Your task to perform on an android device: Open Reddit.com Image 0: 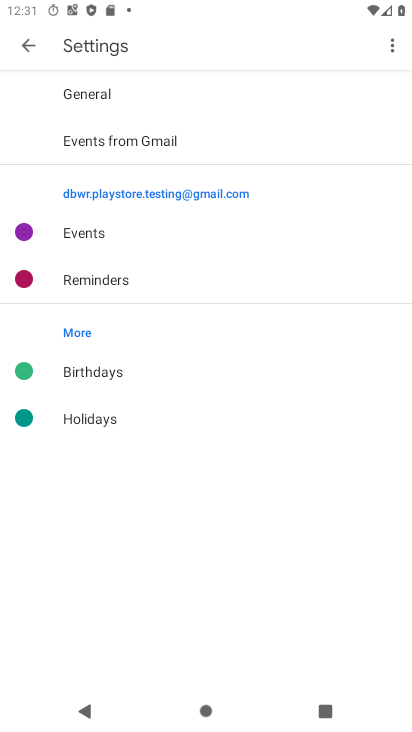
Step 0: press home button
Your task to perform on an android device: Open Reddit.com Image 1: 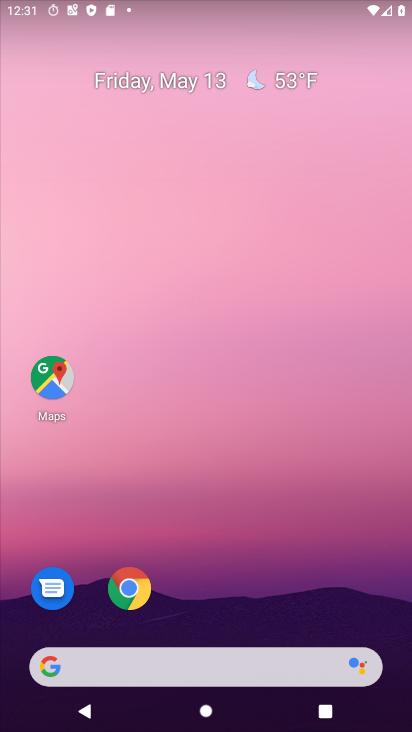
Step 1: drag from (306, 539) to (192, 103)
Your task to perform on an android device: Open Reddit.com Image 2: 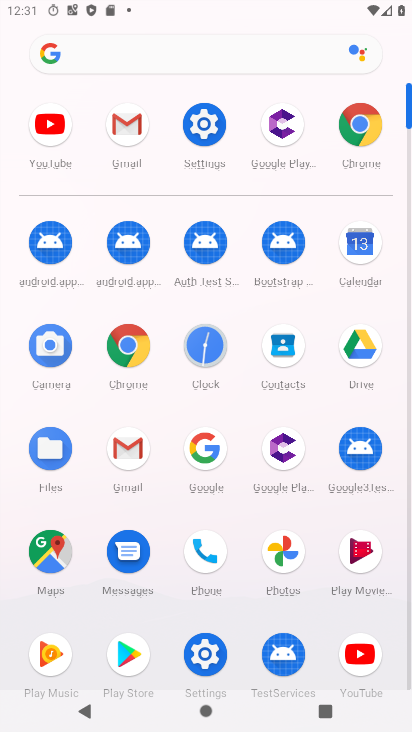
Step 2: click (131, 354)
Your task to perform on an android device: Open Reddit.com Image 3: 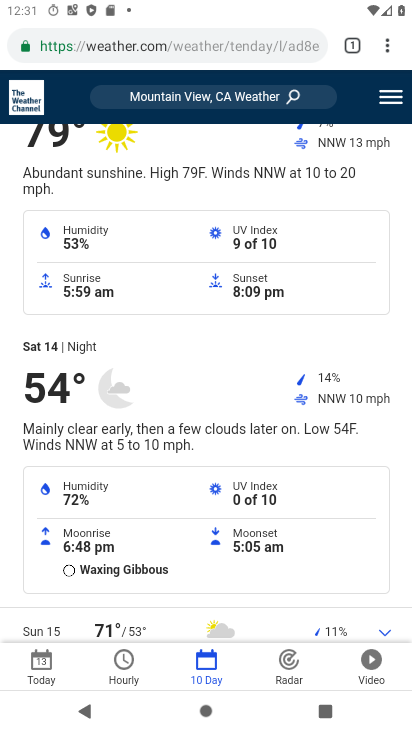
Step 3: click (185, 38)
Your task to perform on an android device: Open Reddit.com Image 4: 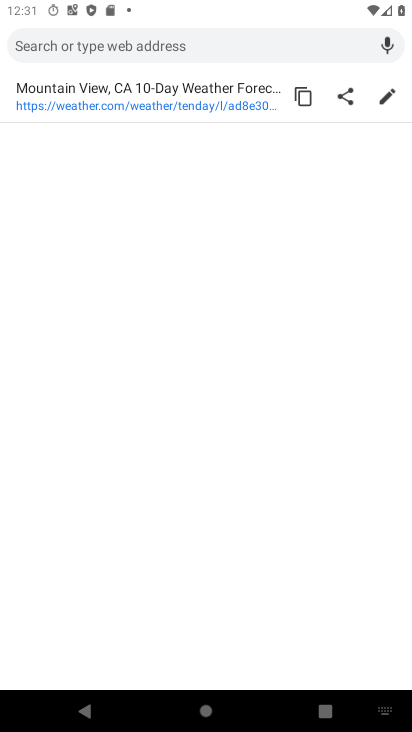
Step 4: type "reddit.com"
Your task to perform on an android device: Open Reddit.com Image 5: 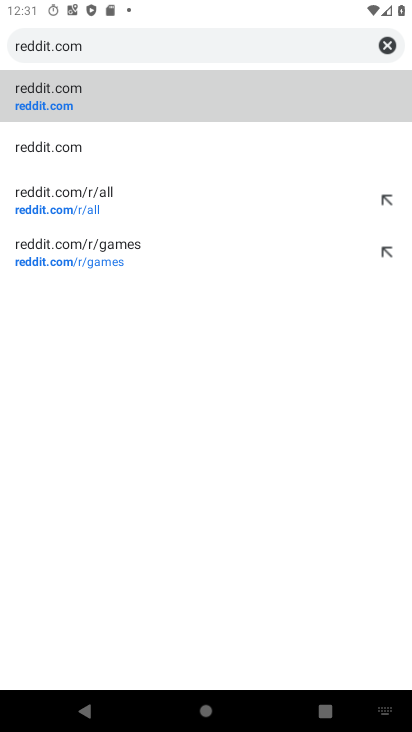
Step 5: click (48, 106)
Your task to perform on an android device: Open Reddit.com Image 6: 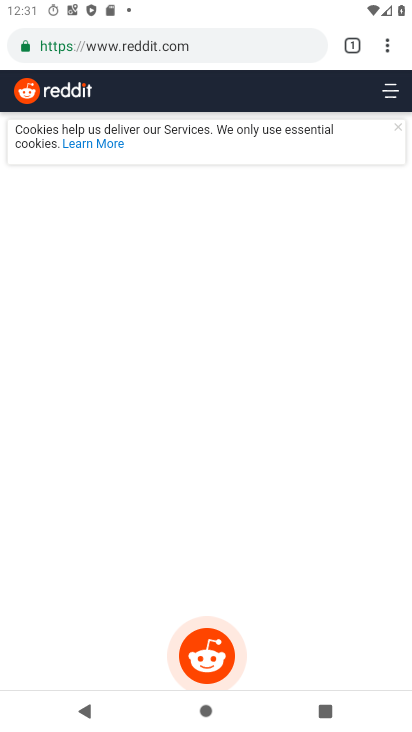
Step 6: task complete